Your task to perform on an android device: Clear all items from cart on walmart. Image 0: 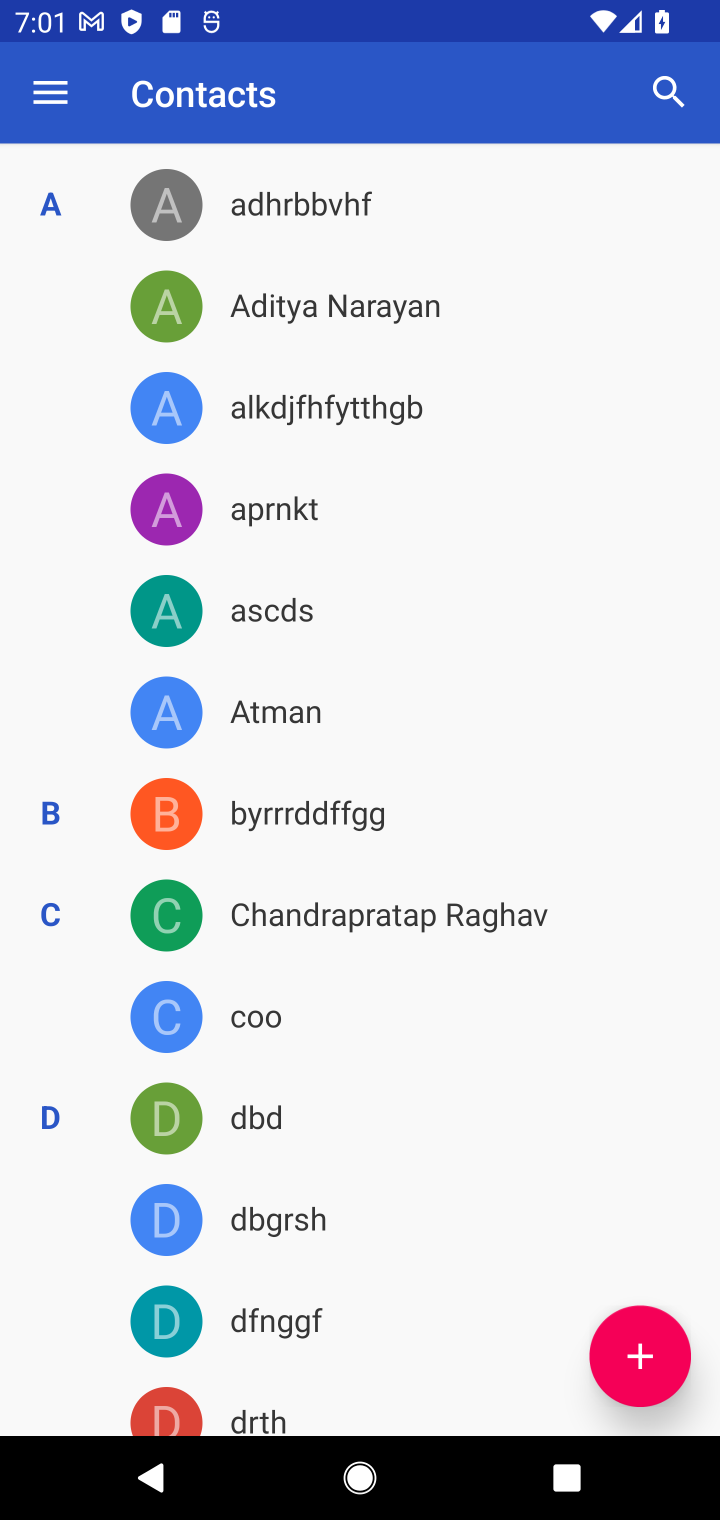
Step 0: press home button
Your task to perform on an android device: Clear all items from cart on walmart. Image 1: 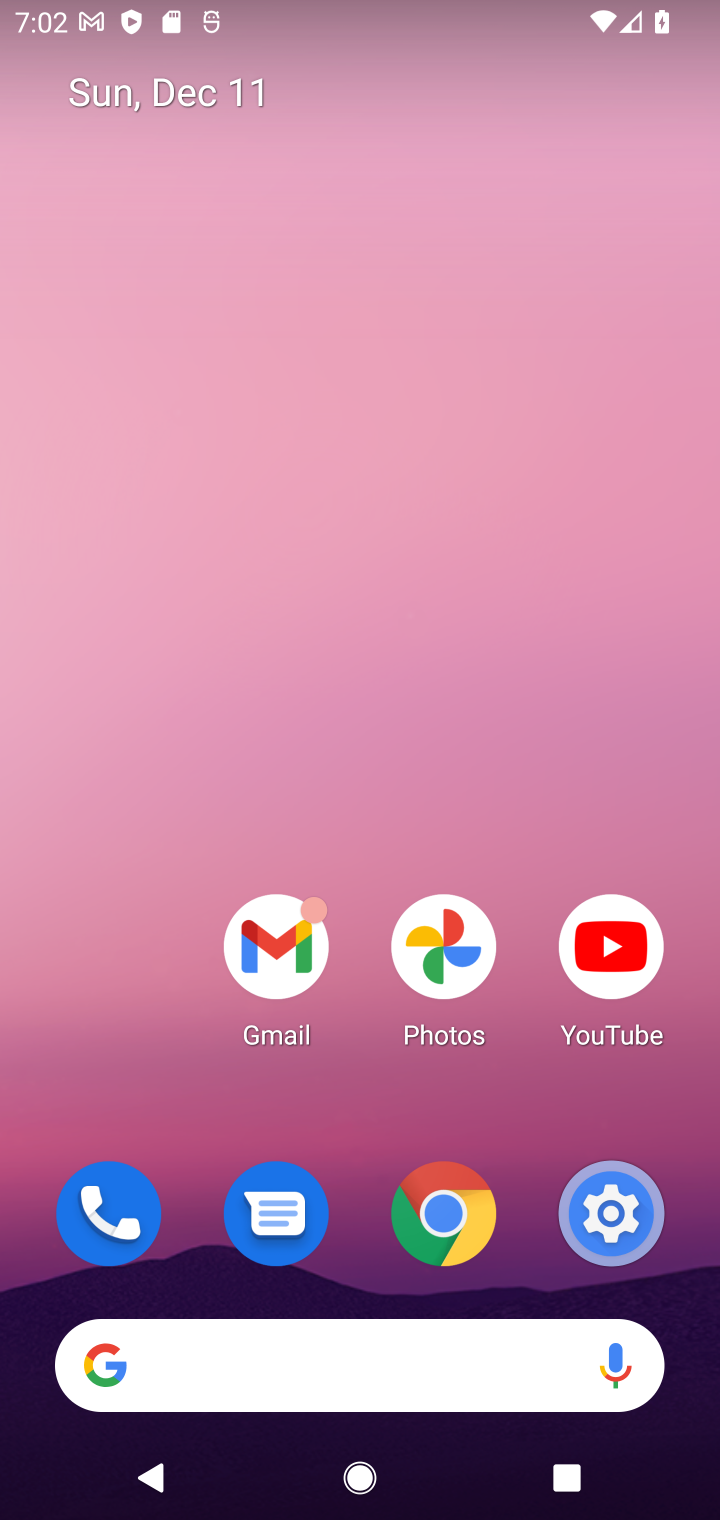
Step 1: click (413, 1382)
Your task to perform on an android device: Clear all items from cart on walmart. Image 2: 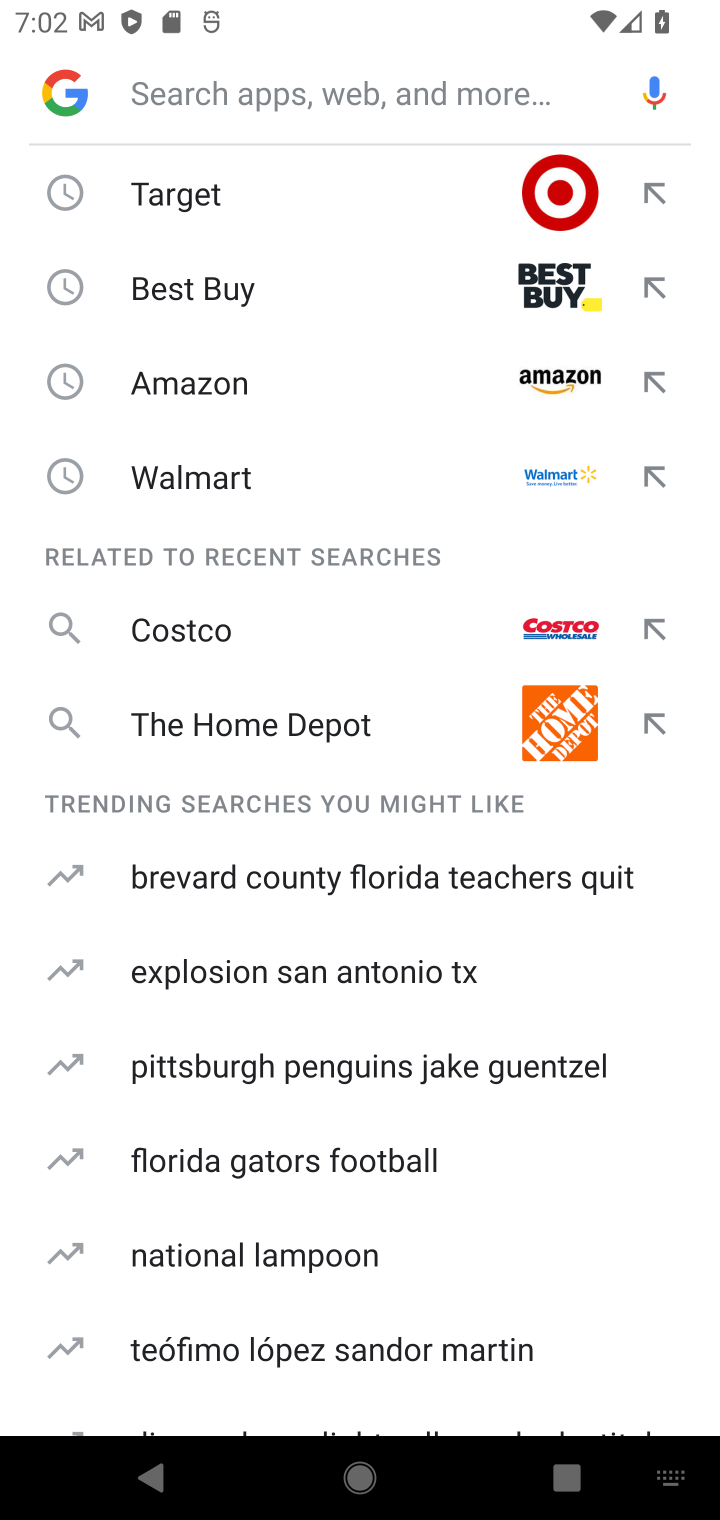
Step 2: click (160, 456)
Your task to perform on an android device: Clear all items from cart on walmart. Image 3: 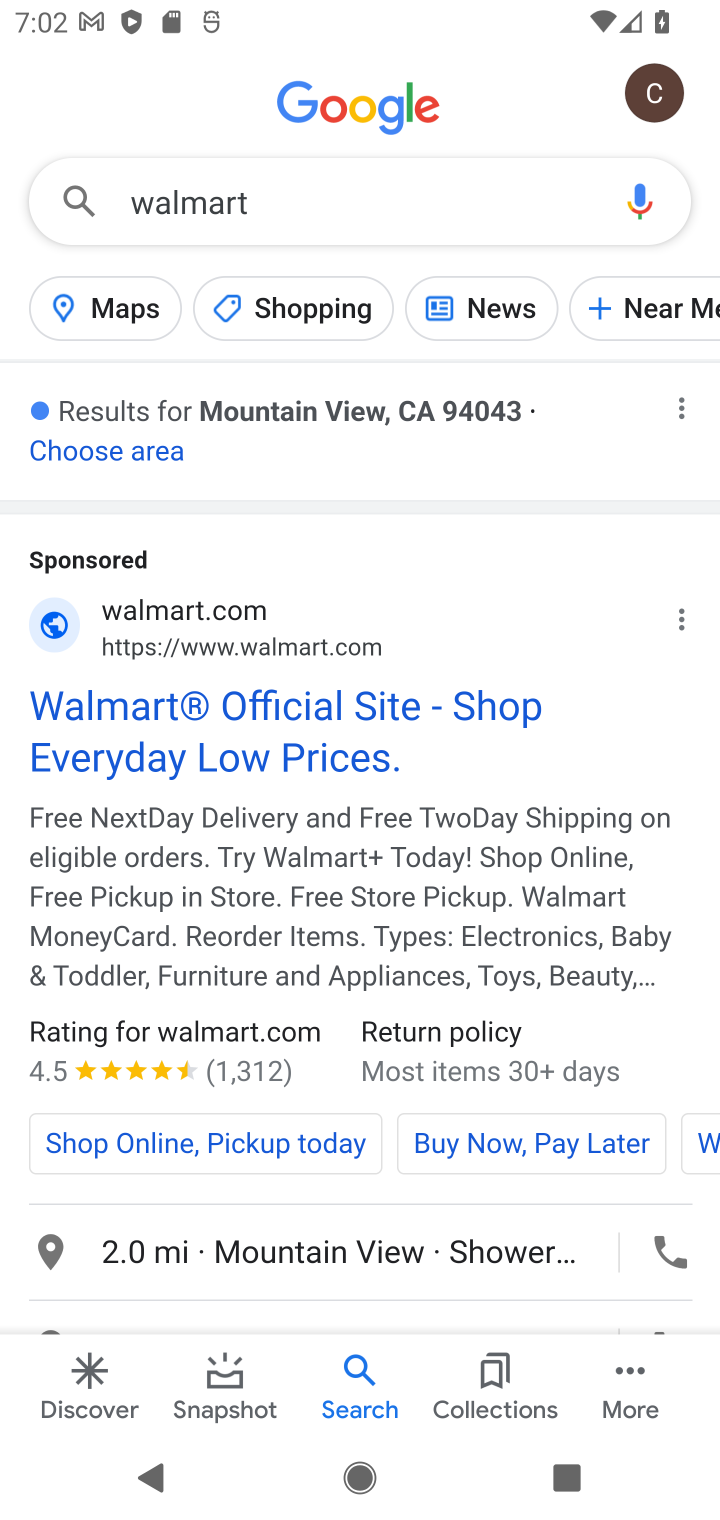
Step 3: click (150, 681)
Your task to perform on an android device: Clear all items from cart on walmart. Image 4: 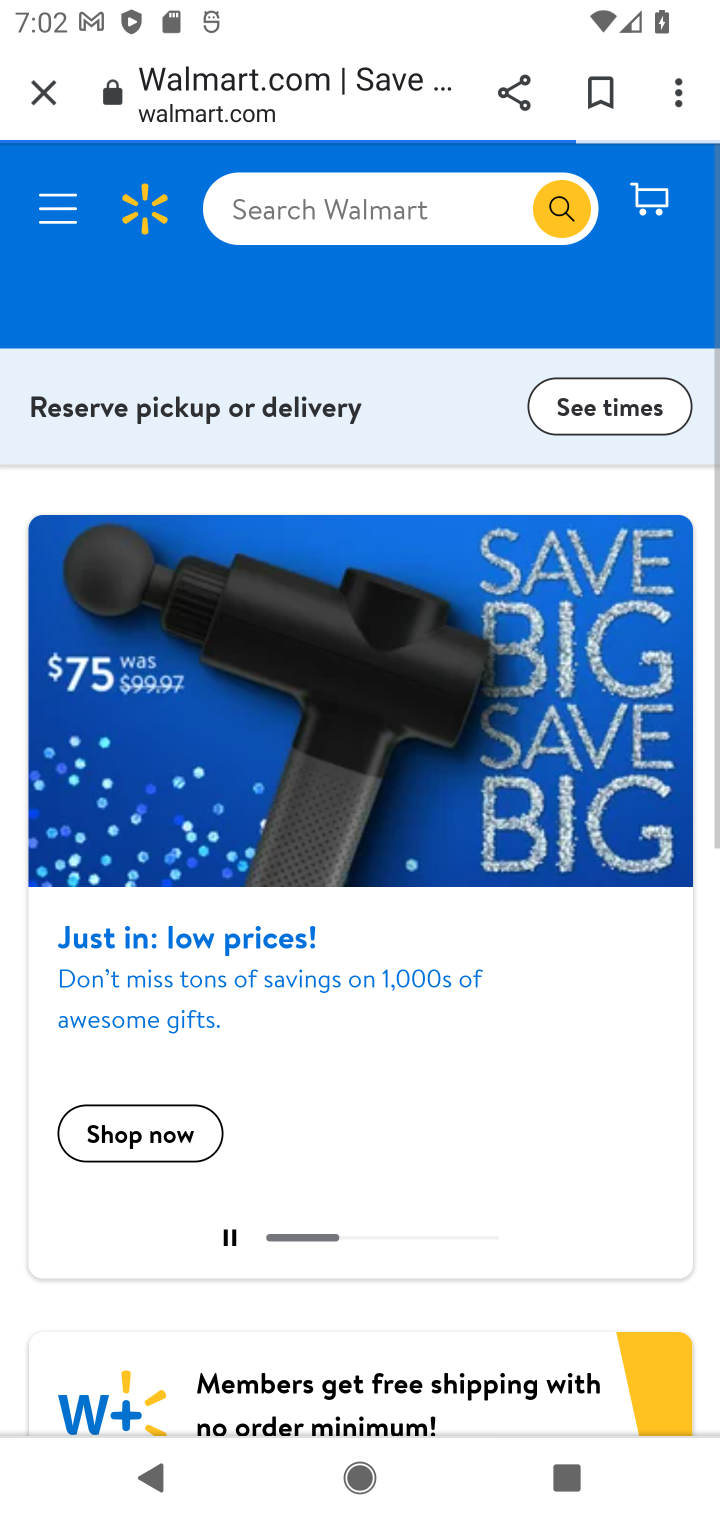
Step 4: click (308, 211)
Your task to perform on an android device: Clear all items from cart on walmart. Image 5: 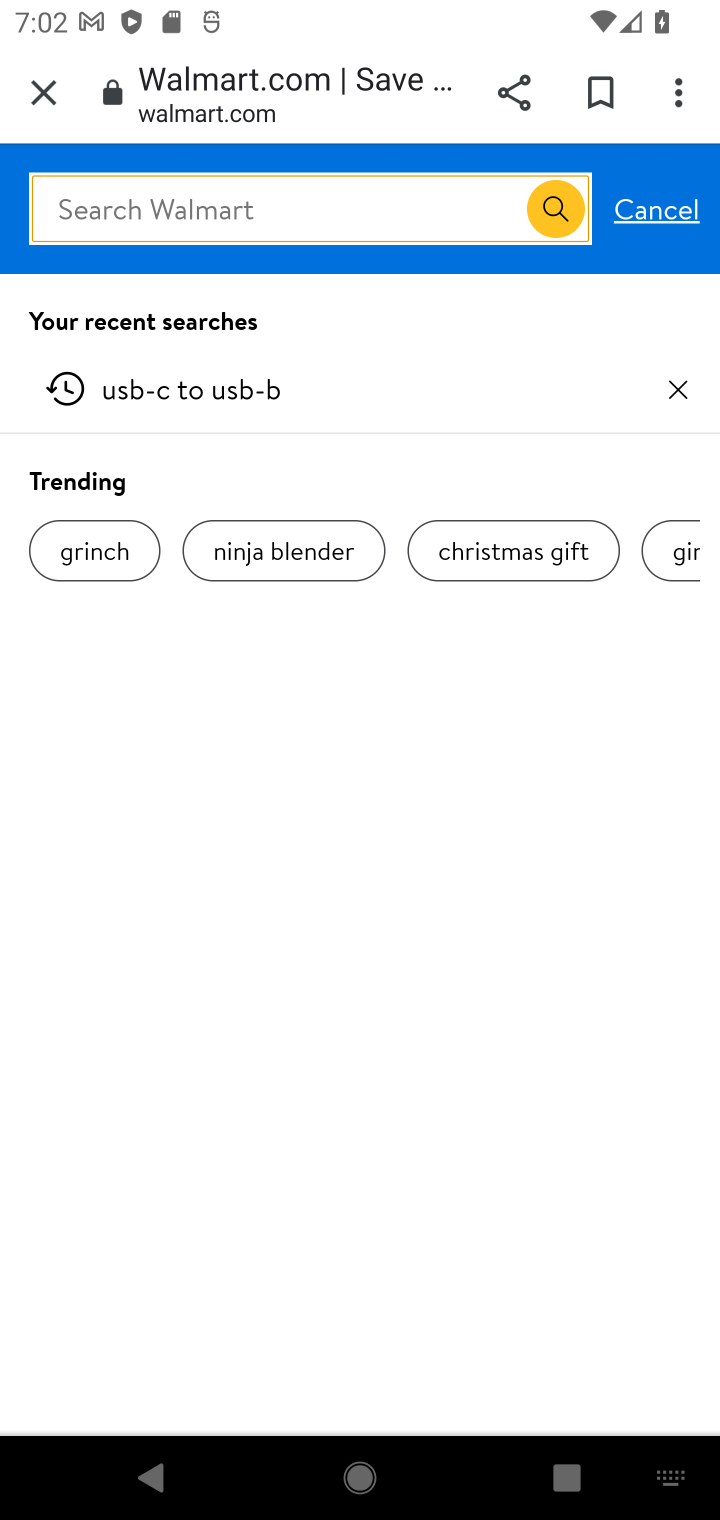
Step 5: click (680, 212)
Your task to perform on an android device: Clear all items from cart on walmart. Image 6: 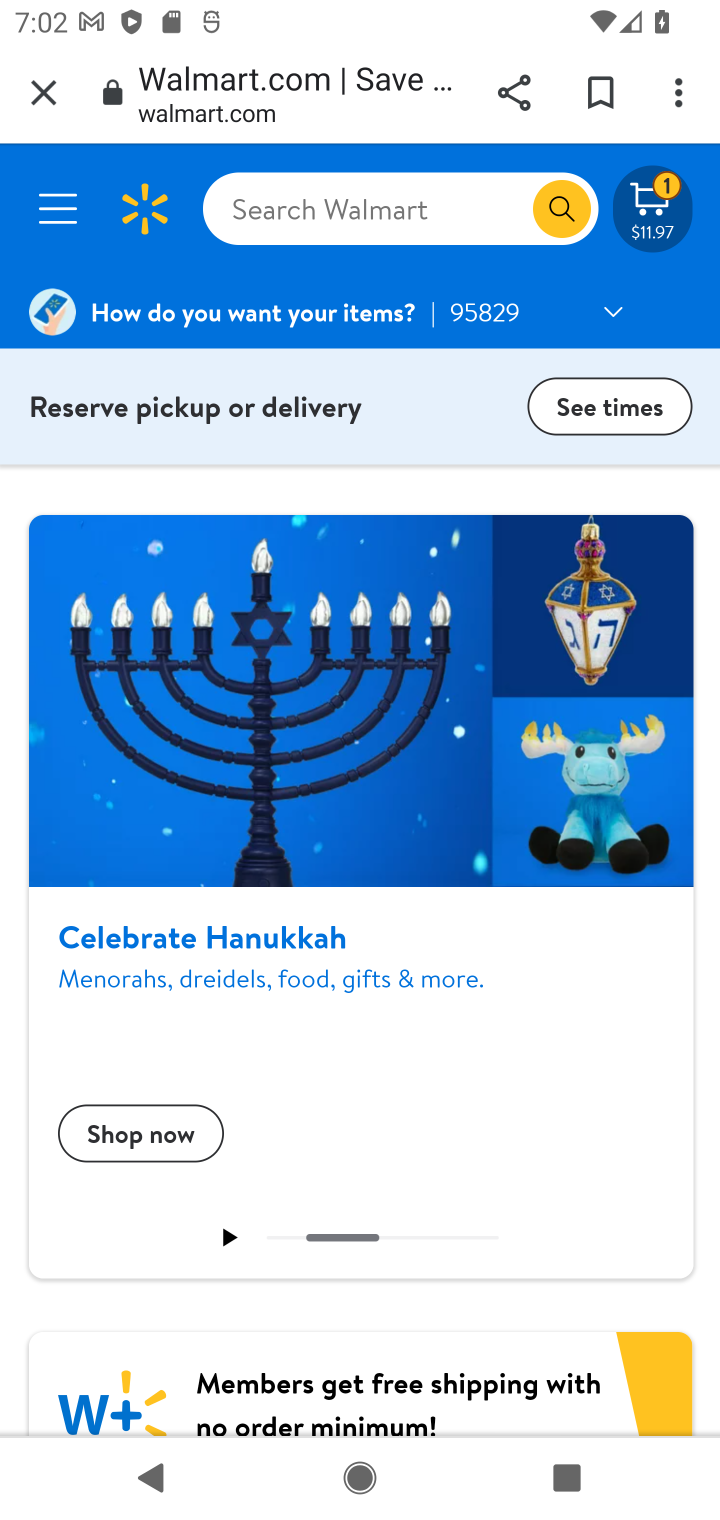
Step 6: click (680, 212)
Your task to perform on an android device: Clear all items from cart on walmart. Image 7: 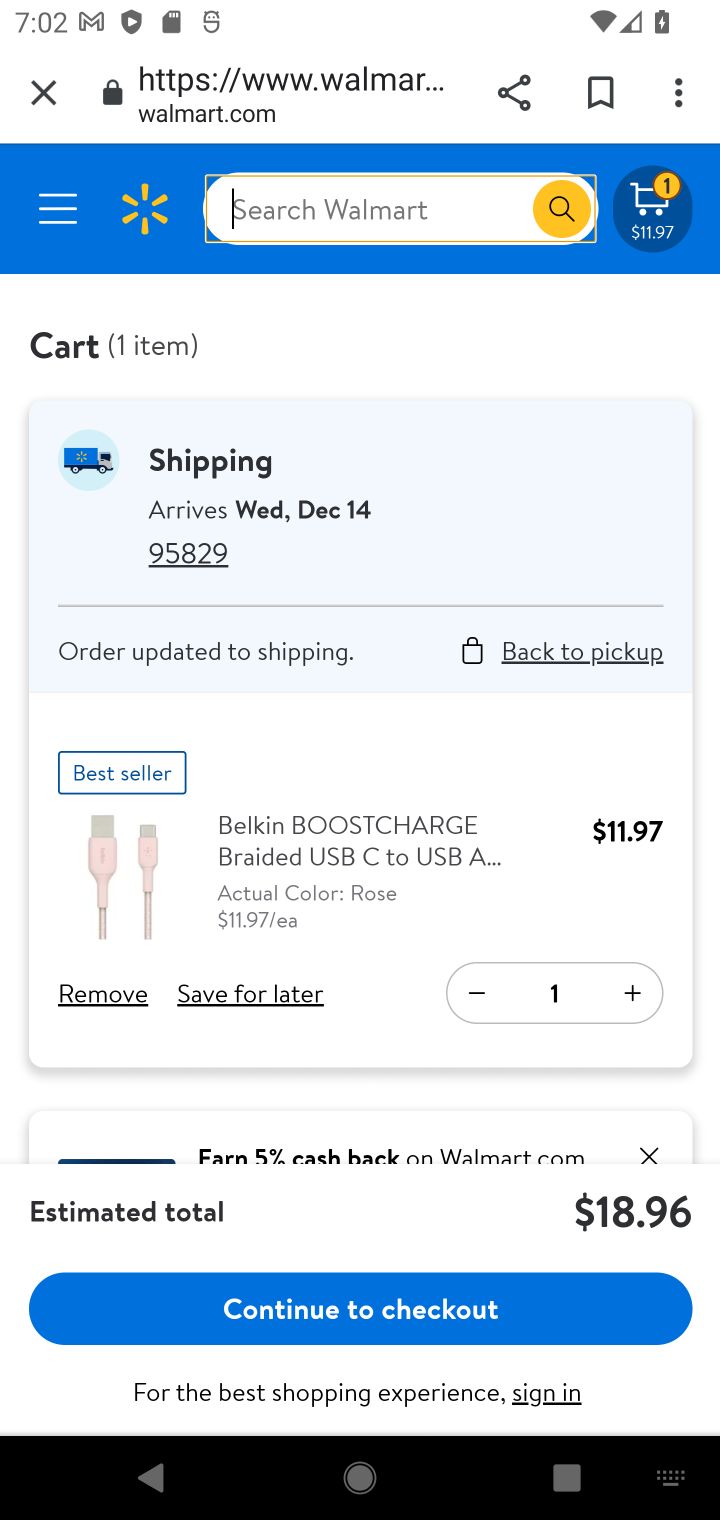
Step 7: click (118, 1004)
Your task to perform on an android device: Clear all items from cart on walmart. Image 8: 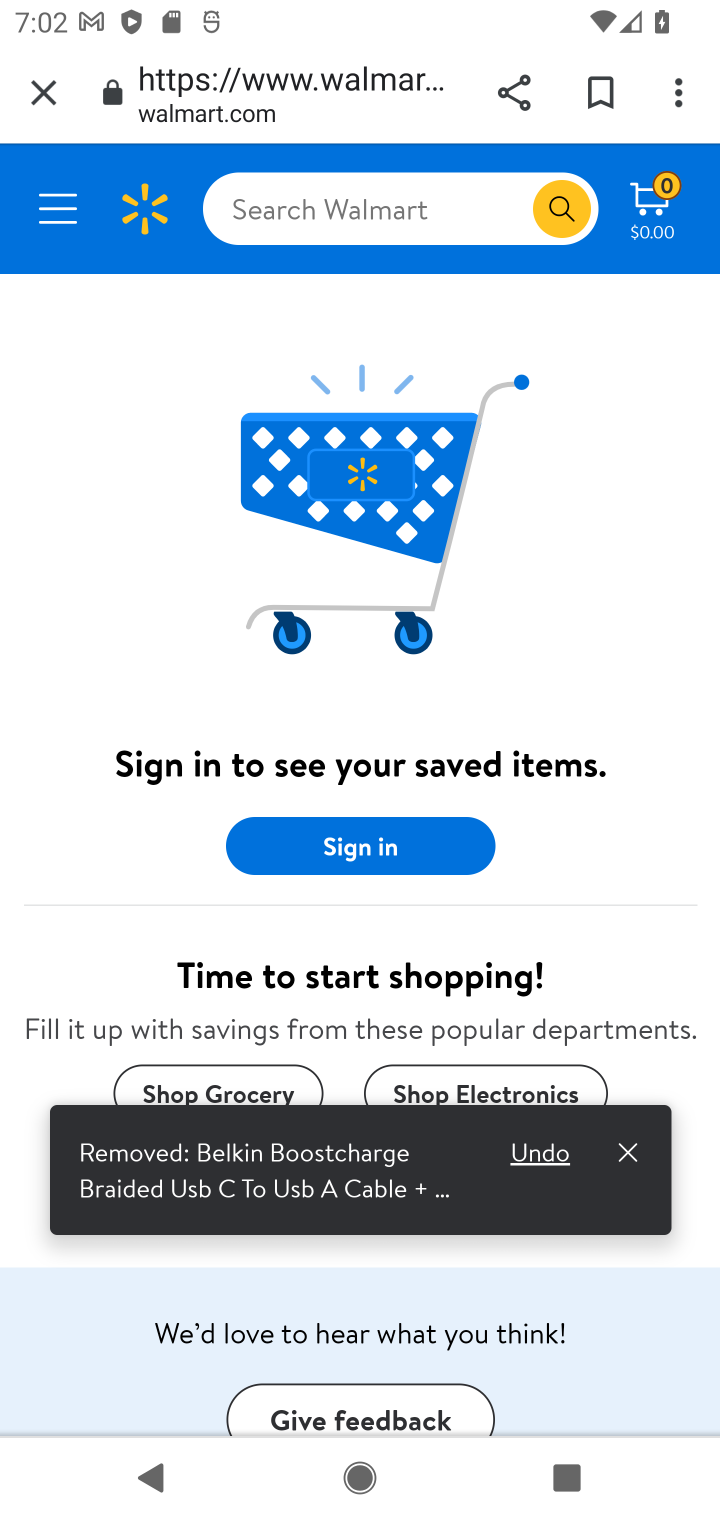
Step 8: task complete